Your task to perform on an android device: toggle data saver in the chrome app Image 0: 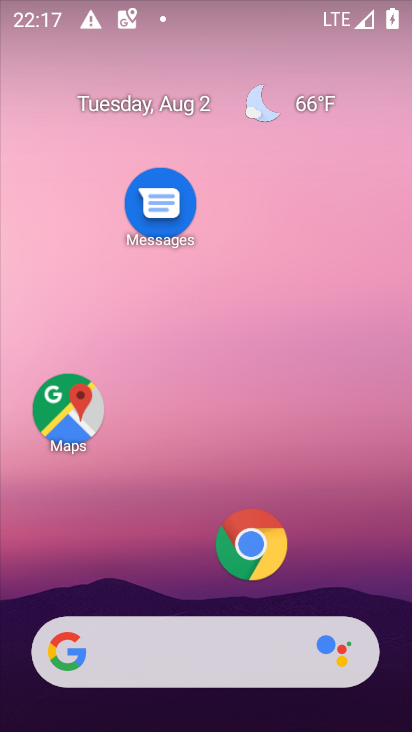
Step 0: click (258, 541)
Your task to perform on an android device: toggle data saver in the chrome app Image 1: 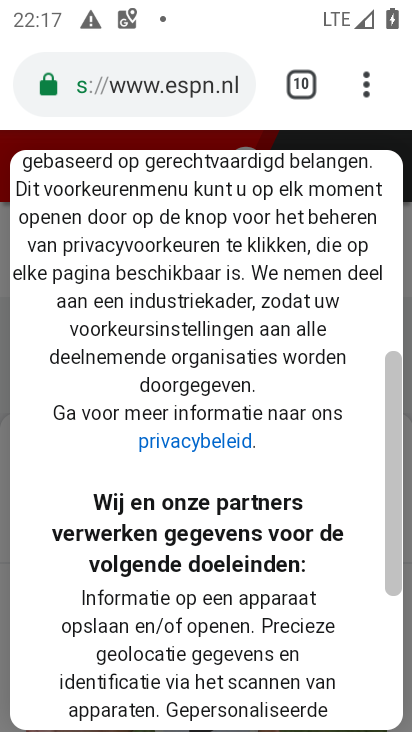
Step 1: click (356, 90)
Your task to perform on an android device: toggle data saver in the chrome app Image 2: 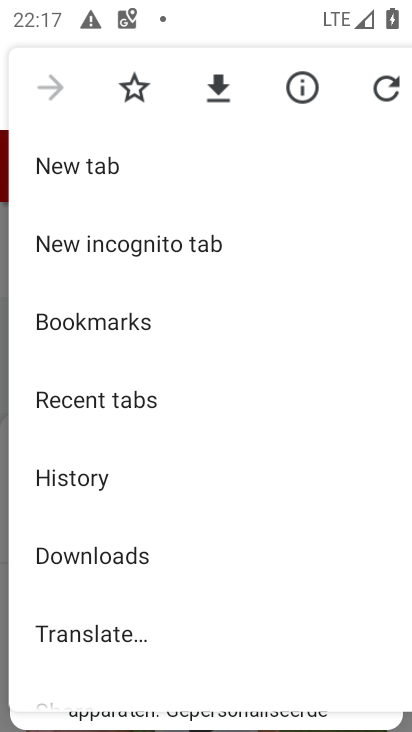
Step 2: drag from (117, 638) to (150, 300)
Your task to perform on an android device: toggle data saver in the chrome app Image 3: 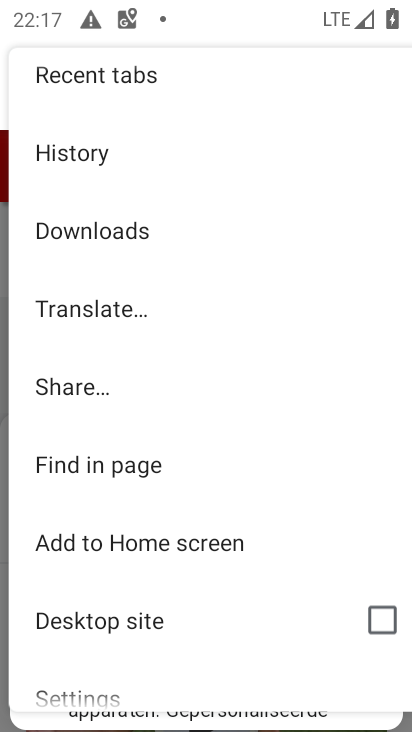
Step 3: drag from (89, 640) to (113, 359)
Your task to perform on an android device: toggle data saver in the chrome app Image 4: 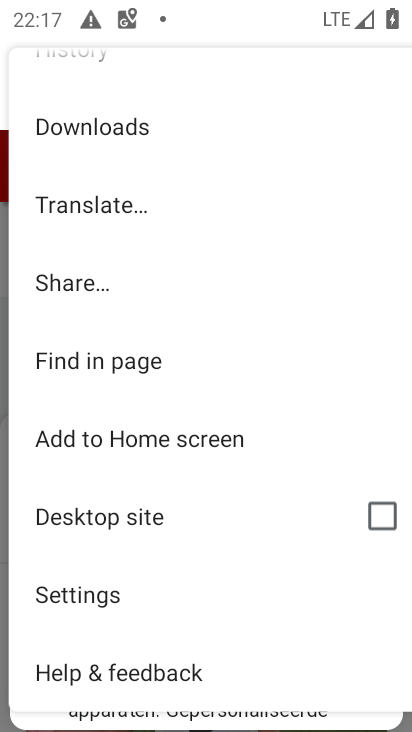
Step 4: click (106, 593)
Your task to perform on an android device: toggle data saver in the chrome app Image 5: 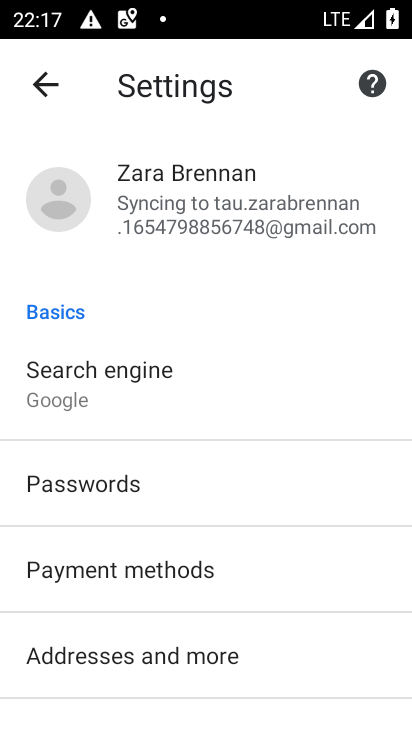
Step 5: drag from (153, 589) to (145, 301)
Your task to perform on an android device: toggle data saver in the chrome app Image 6: 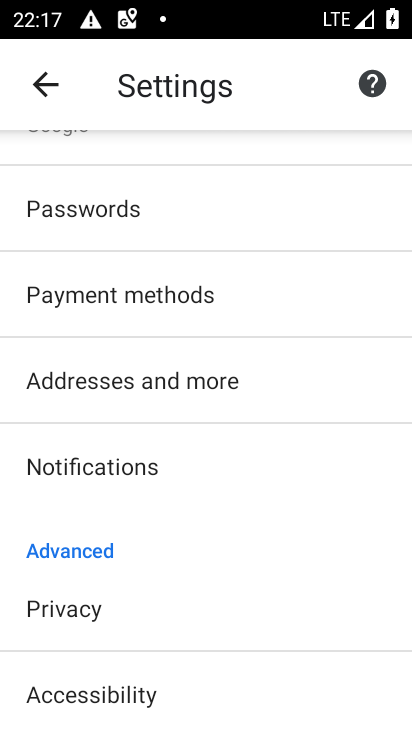
Step 6: drag from (145, 653) to (194, 422)
Your task to perform on an android device: toggle data saver in the chrome app Image 7: 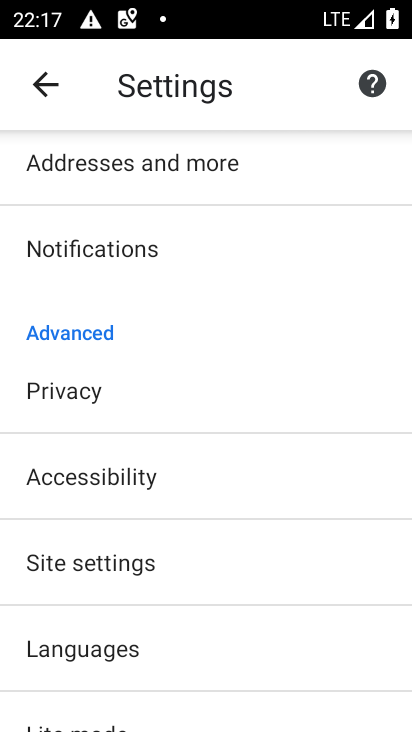
Step 7: drag from (168, 640) to (161, 410)
Your task to perform on an android device: toggle data saver in the chrome app Image 8: 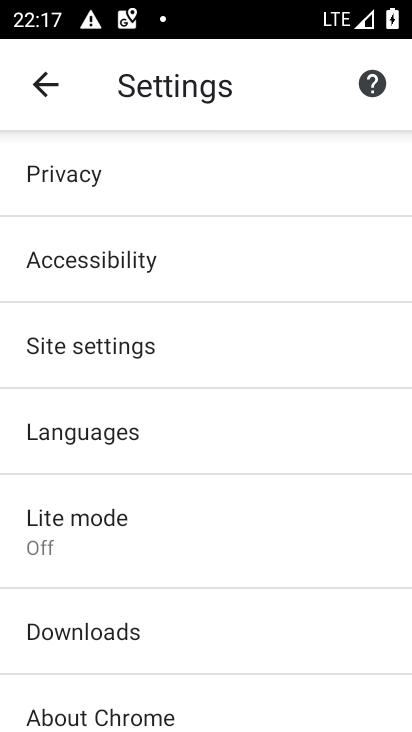
Step 8: click (132, 354)
Your task to perform on an android device: toggle data saver in the chrome app Image 9: 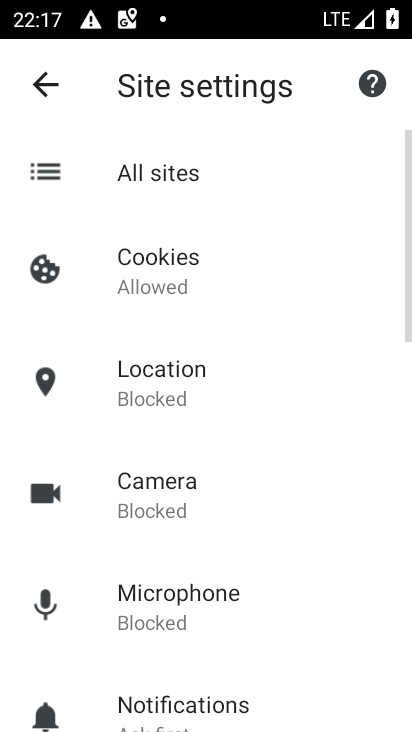
Step 9: drag from (168, 611) to (217, 422)
Your task to perform on an android device: toggle data saver in the chrome app Image 10: 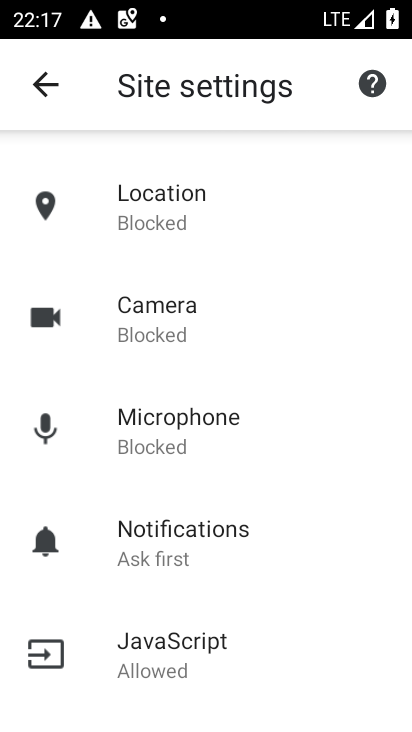
Step 10: drag from (194, 646) to (198, 480)
Your task to perform on an android device: toggle data saver in the chrome app Image 11: 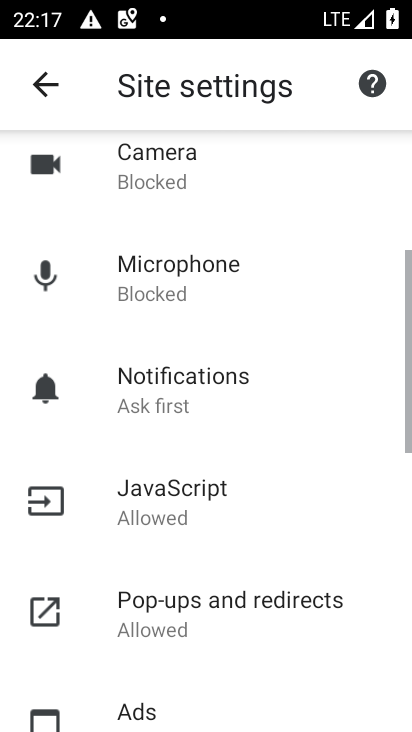
Step 11: click (43, 98)
Your task to perform on an android device: toggle data saver in the chrome app Image 12: 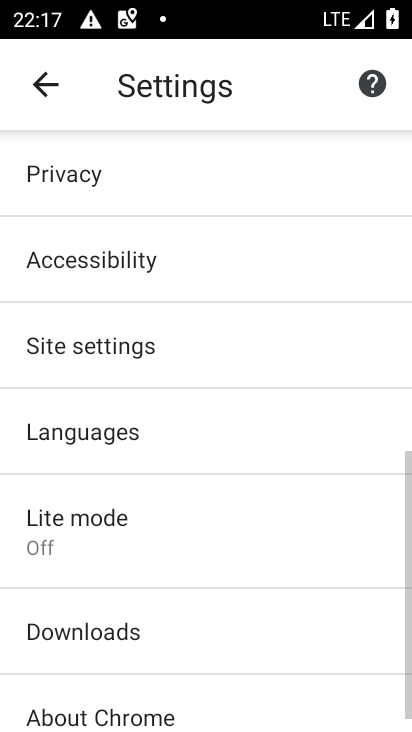
Step 12: click (126, 536)
Your task to perform on an android device: toggle data saver in the chrome app Image 13: 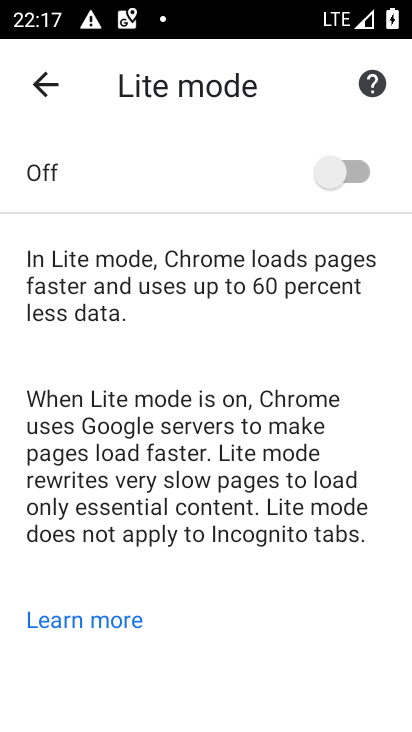
Step 13: click (367, 170)
Your task to perform on an android device: toggle data saver in the chrome app Image 14: 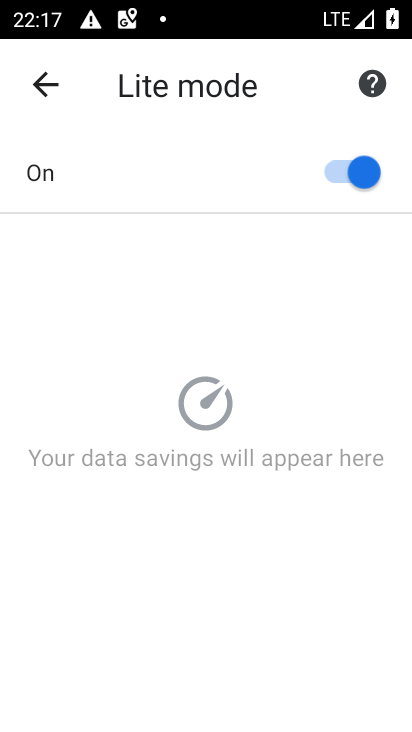
Step 14: task complete